Your task to perform on an android device: Open Chrome and go to the settings page Image 0: 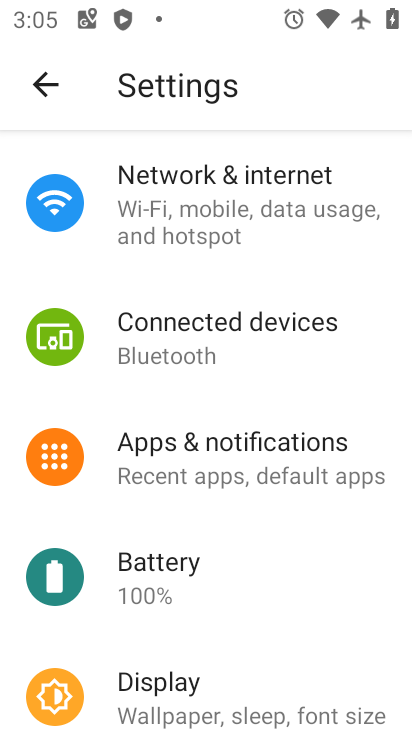
Step 0: press home button
Your task to perform on an android device: Open Chrome and go to the settings page Image 1: 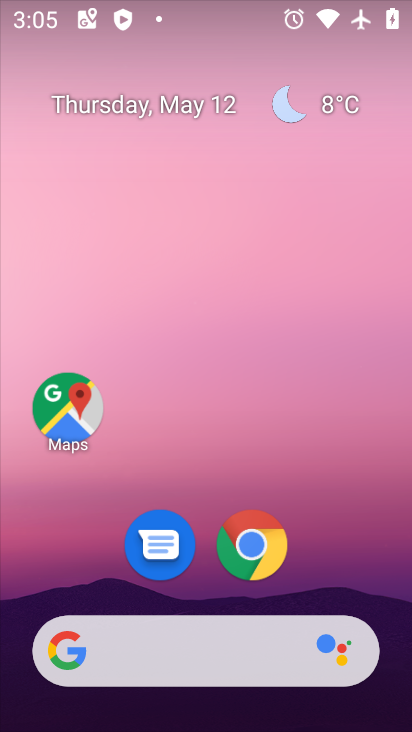
Step 1: click (253, 547)
Your task to perform on an android device: Open Chrome and go to the settings page Image 2: 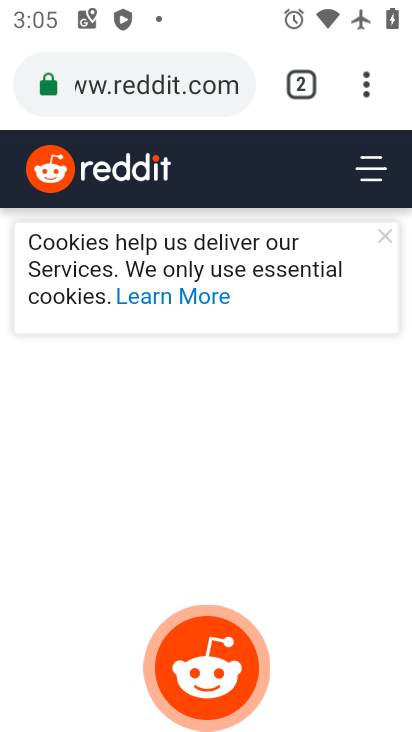
Step 2: click (359, 84)
Your task to perform on an android device: Open Chrome and go to the settings page Image 3: 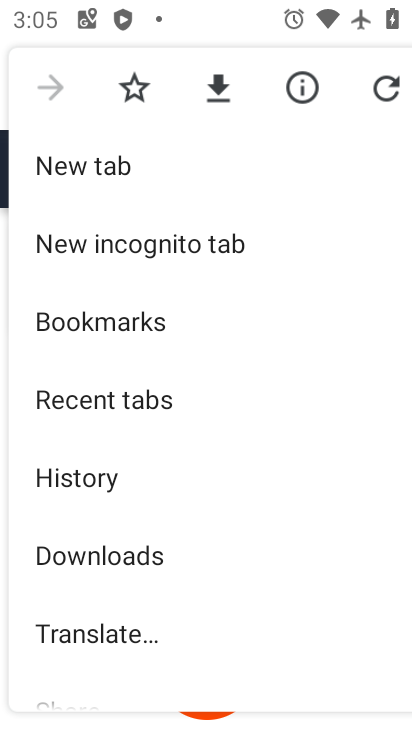
Step 3: drag from (192, 674) to (264, 150)
Your task to perform on an android device: Open Chrome and go to the settings page Image 4: 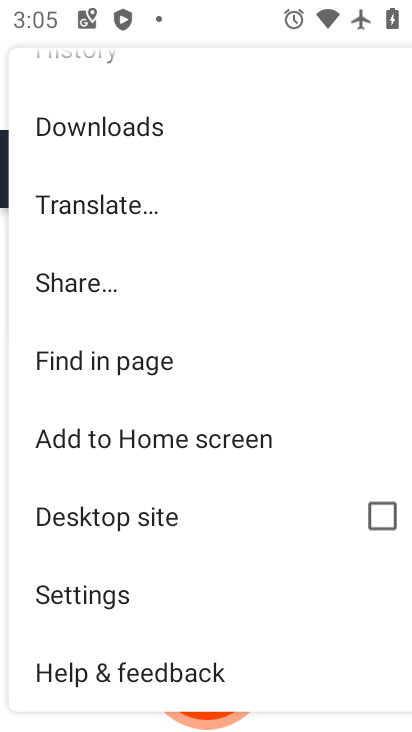
Step 4: click (82, 597)
Your task to perform on an android device: Open Chrome and go to the settings page Image 5: 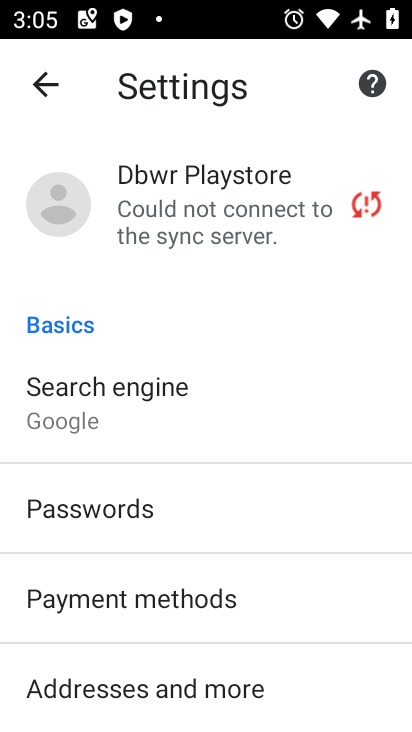
Step 5: task complete